Your task to perform on an android device: delete browsing data in the chrome app Image 0: 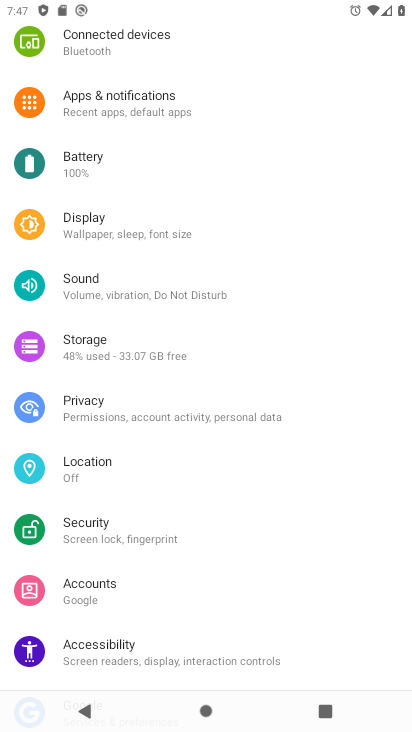
Step 0: press home button
Your task to perform on an android device: delete browsing data in the chrome app Image 1: 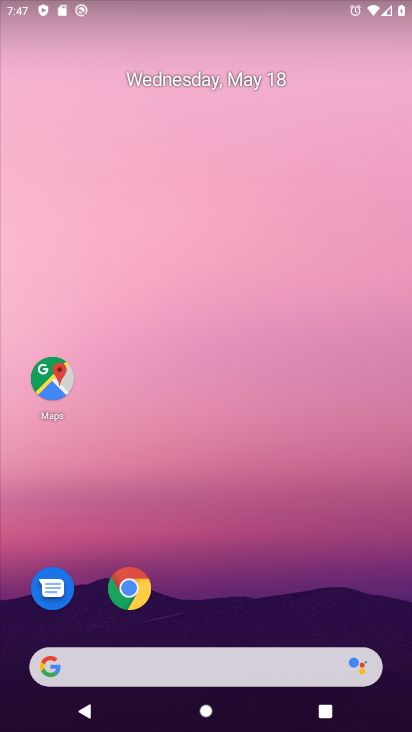
Step 1: drag from (206, 603) to (256, 158)
Your task to perform on an android device: delete browsing data in the chrome app Image 2: 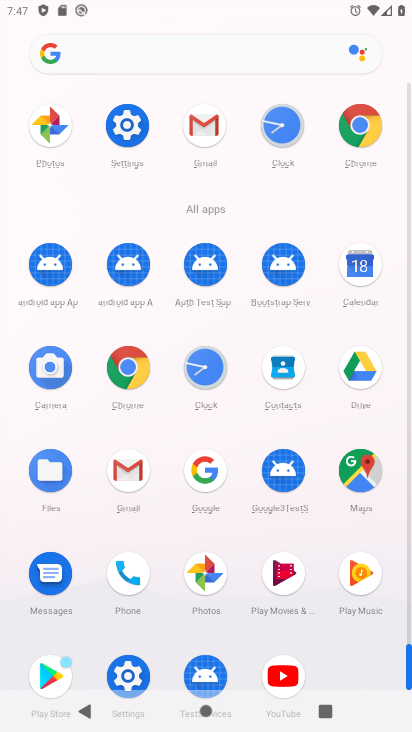
Step 2: click (126, 367)
Your task to perform on an android device: delete browsing data in the chrome app Image 3: 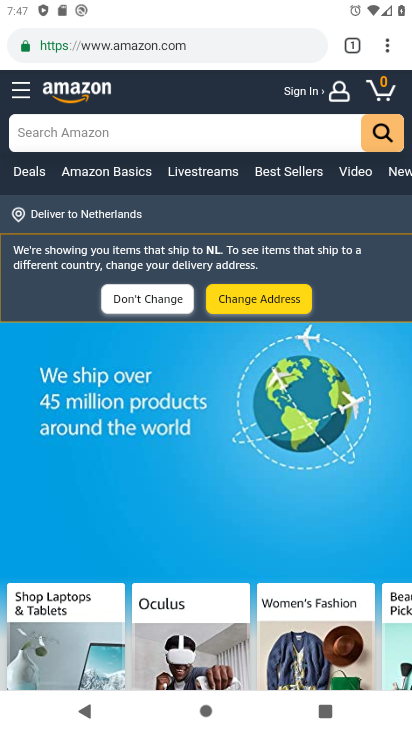
Step 3: click (392, 38)
Your task to perform on an android device: delete browsing data in the chrome app Image 4: 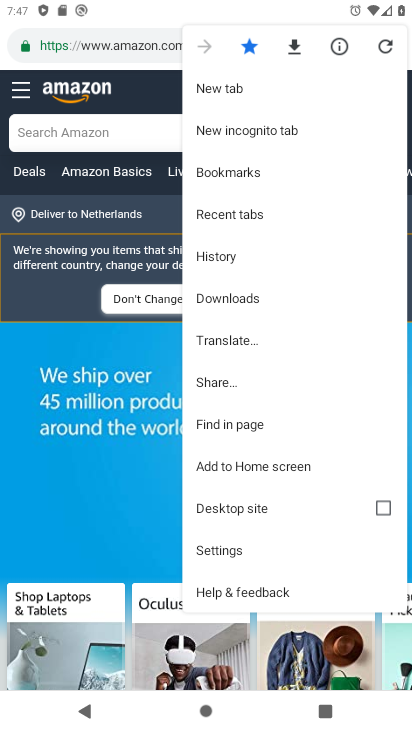
Step 4: click (233, 267)
Your task to perform on an android device: delete browsing data in the chrome app Image 5: 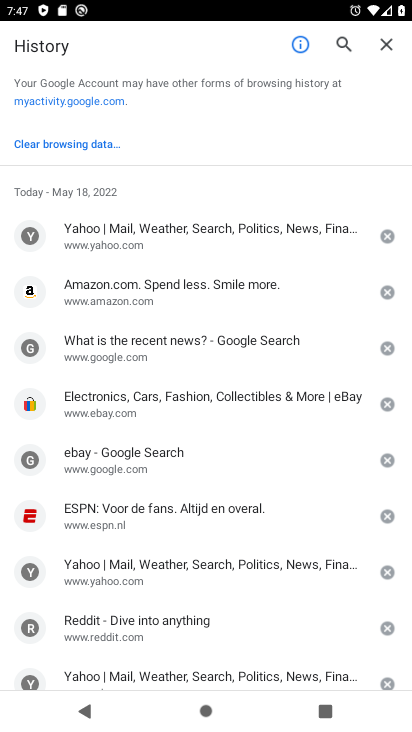
Step 5: click (54, 145)
Your task to perform on an android device: delete browsing data in the chrome app Image 6: 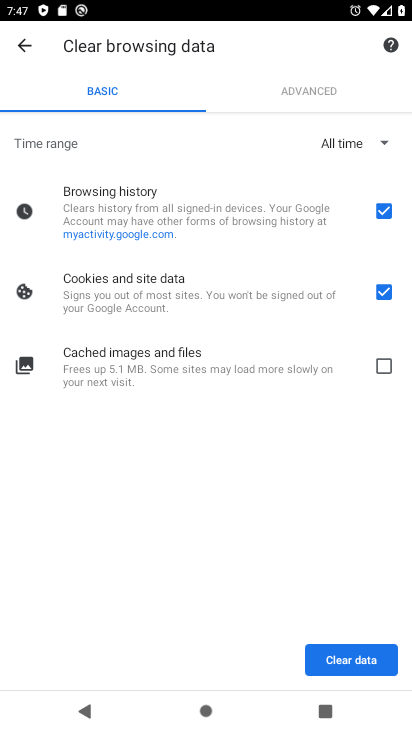
Step 6: click (377, 360)
Your task to perform on an android device: delete browsing data in the chrome app Image 7: 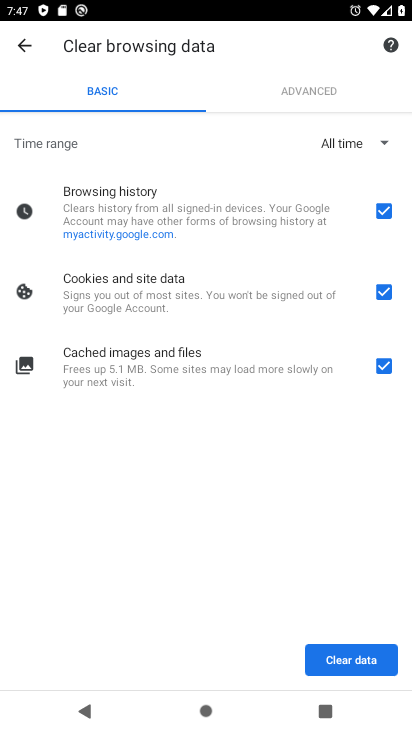
Step 7: click (346, 650)
Your task to perform on an android device: delete browsing data in the chrome app Image 8: 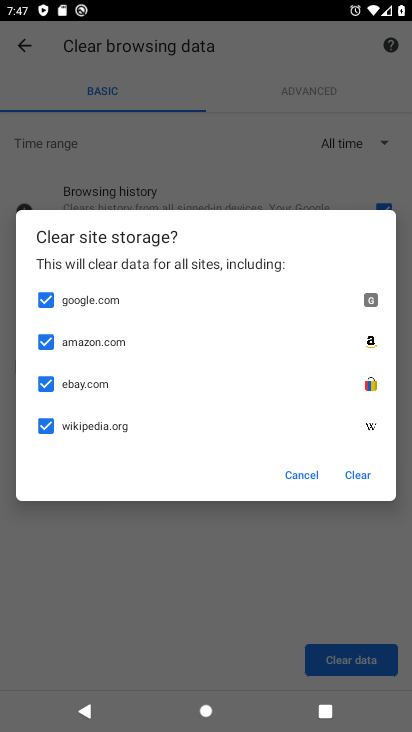
Step 8: click (367, 472)
Your task to perform on an android device: delete browsing data in the chrome app Image 9: 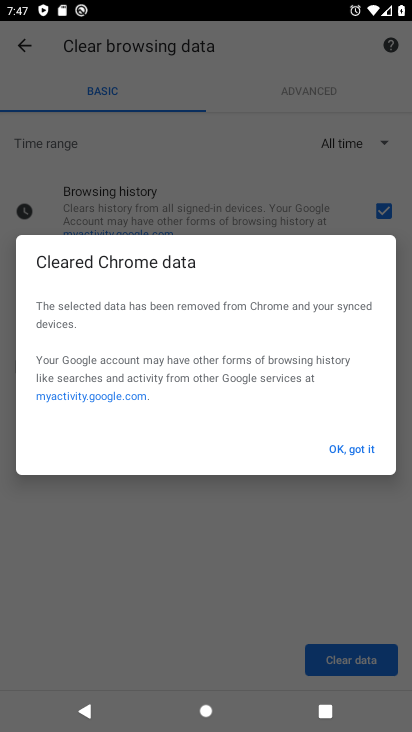
Step 9: click (339, 445)
Your task to perform on an android device: delete browsing data in the chrome app Image 10: 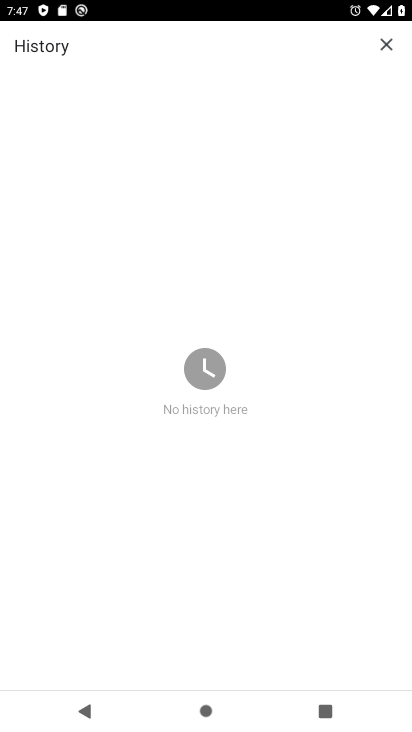
Step 10: task complete